Your task to perform on an android device: Open location settings Image 0: 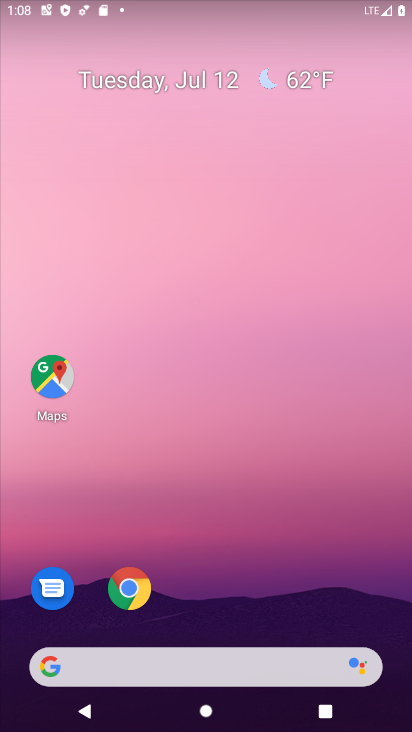
Step 0: drag from (127, 704) to (272, 29)
Your task to perform on an android device: Open location settings Image 1: 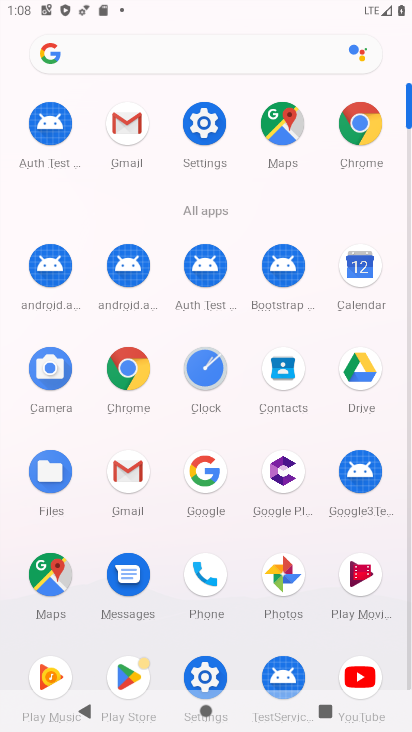
Step 1: click (203, 131)
Your task to perform on an android device: Open location settings Image 2: 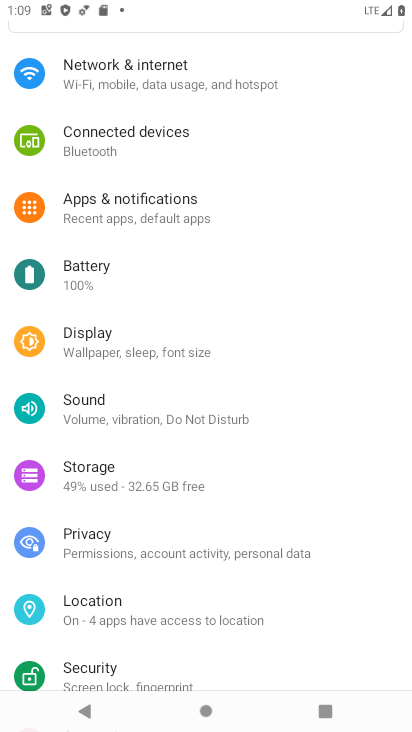
Step 2: click (111, 614)
Your task to perform on an android device: Open location settings Image 3: 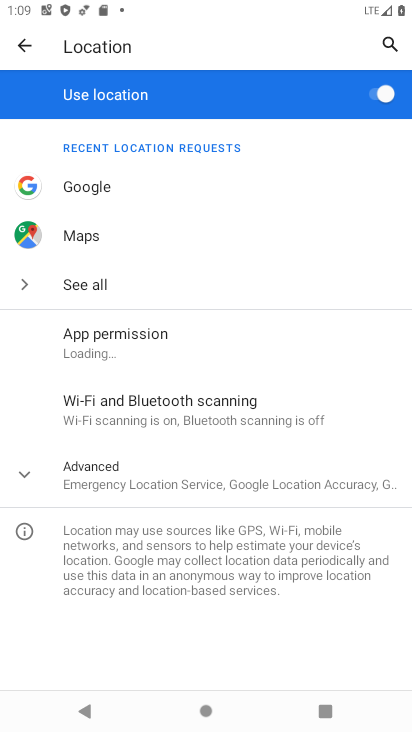
Step 3: task complete